Your task to perform on an android device: open app "AliExpress" Image 0: 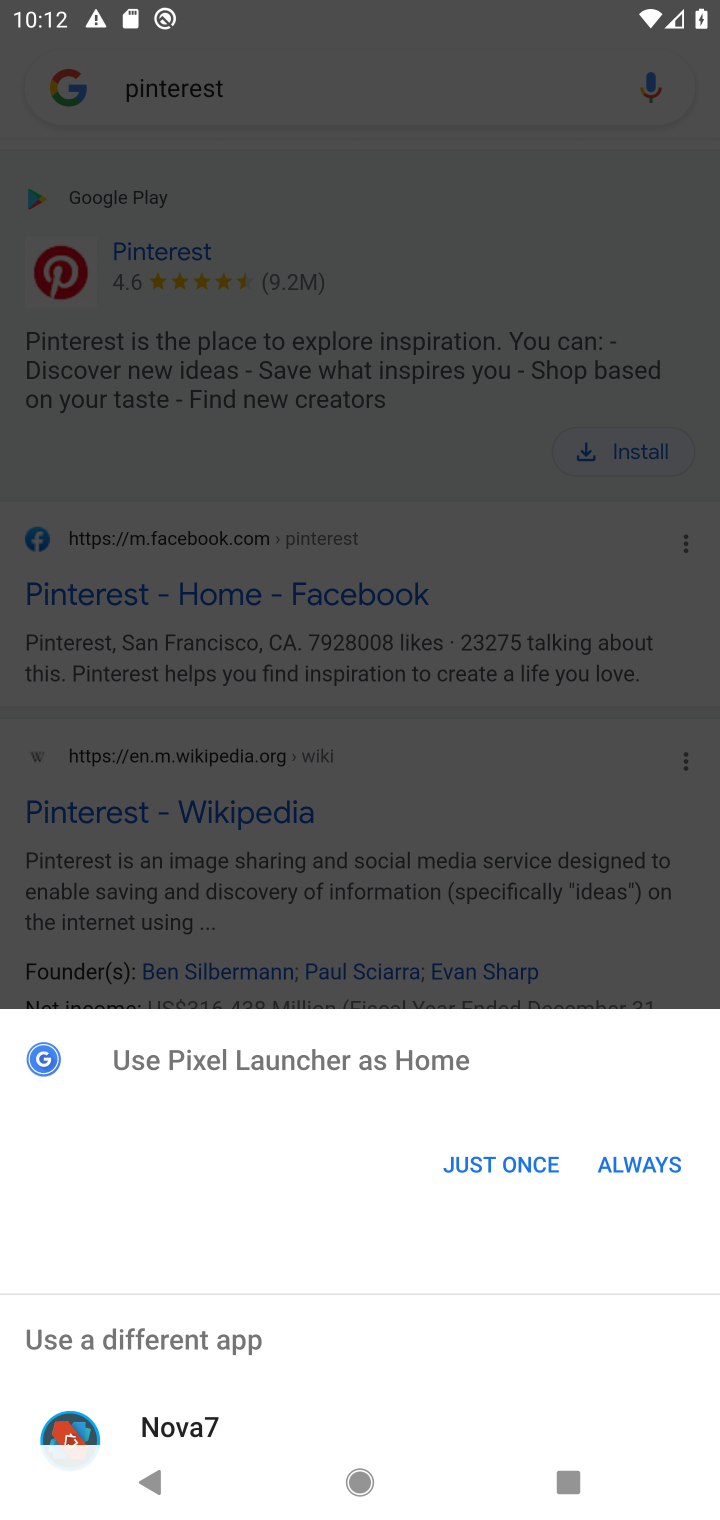
Step 0: press home button
Your task to perform on an android device: open app "AliExpress" Image 1: 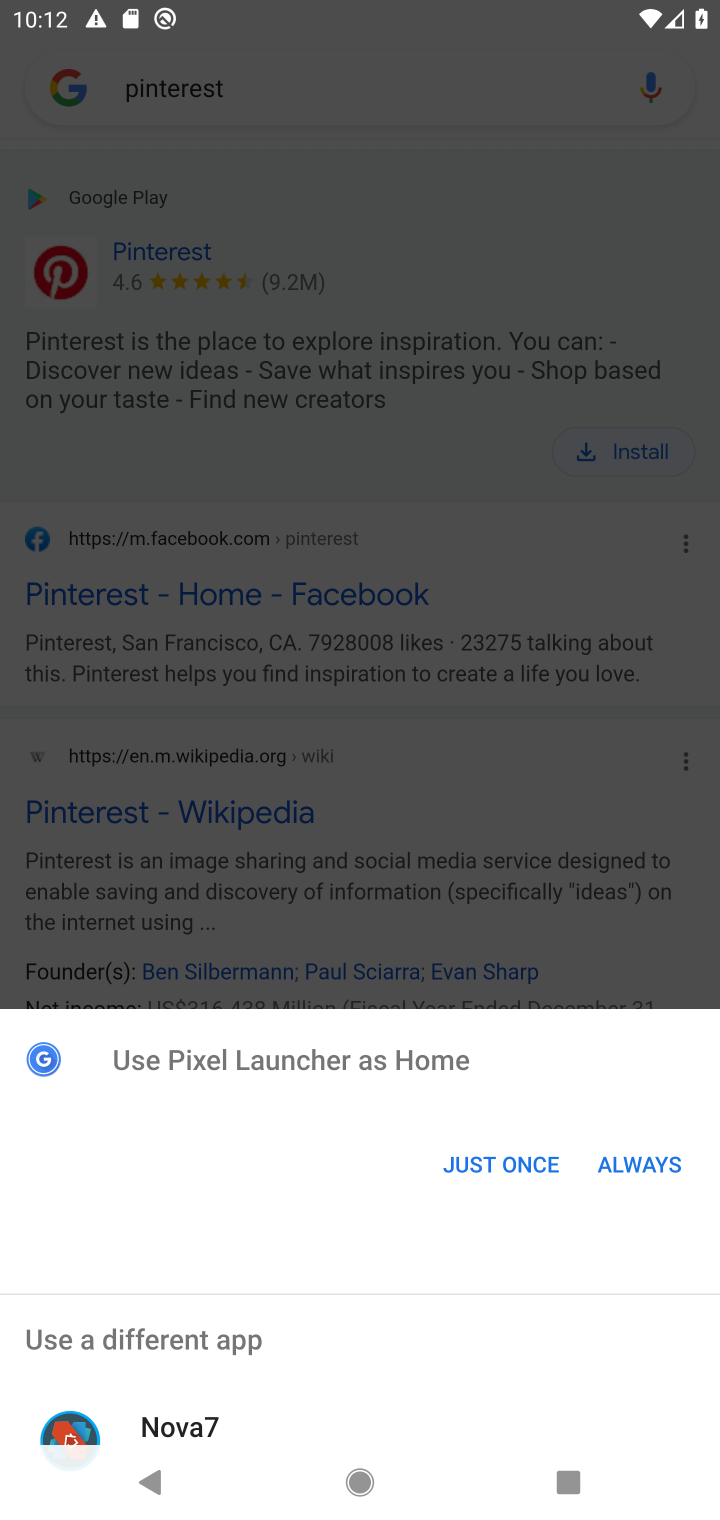
Step 1: click (470, 1182)
Your task to perform on an android device: open app "AliExpress" Image 2: 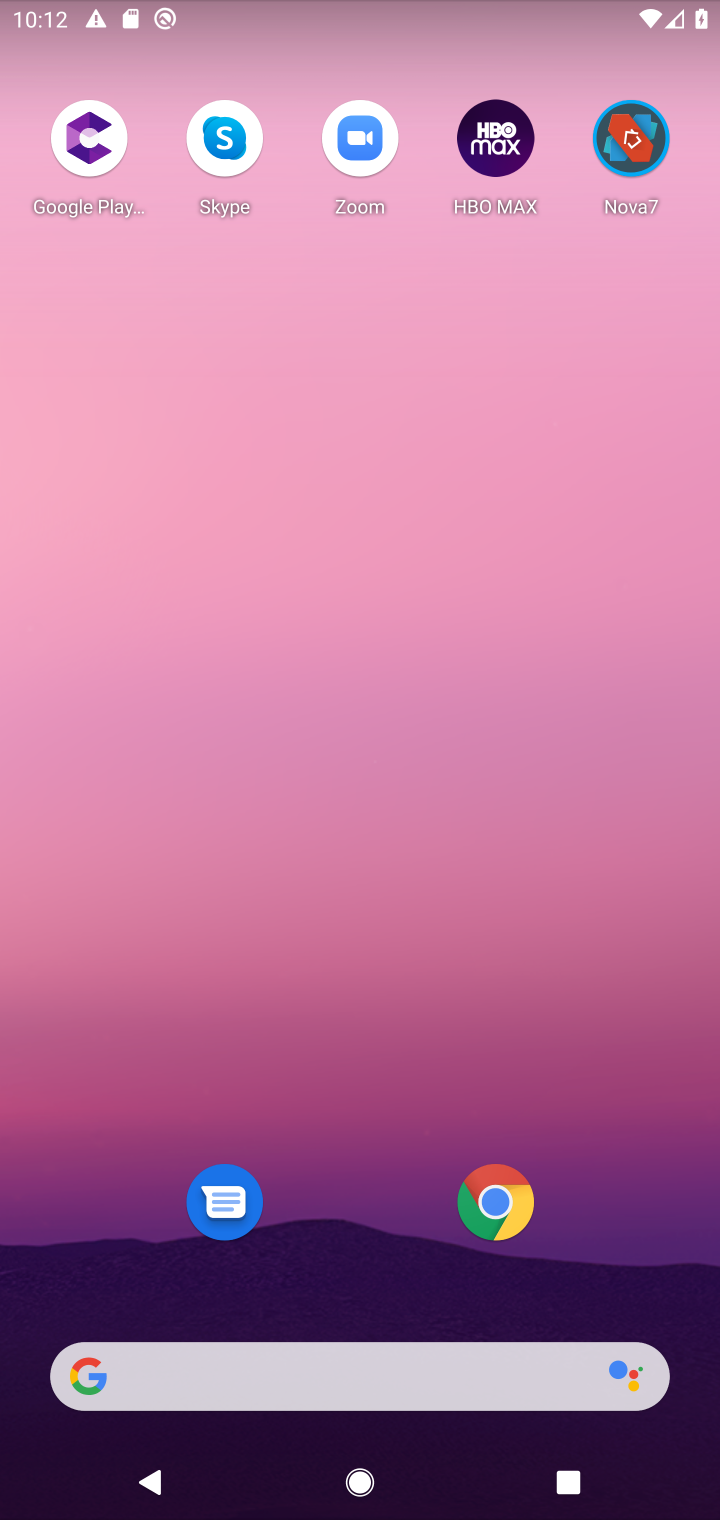
Step 2: click (342, 1383)
Your task to perform on an android device: open app "AliExpress" Image 3: 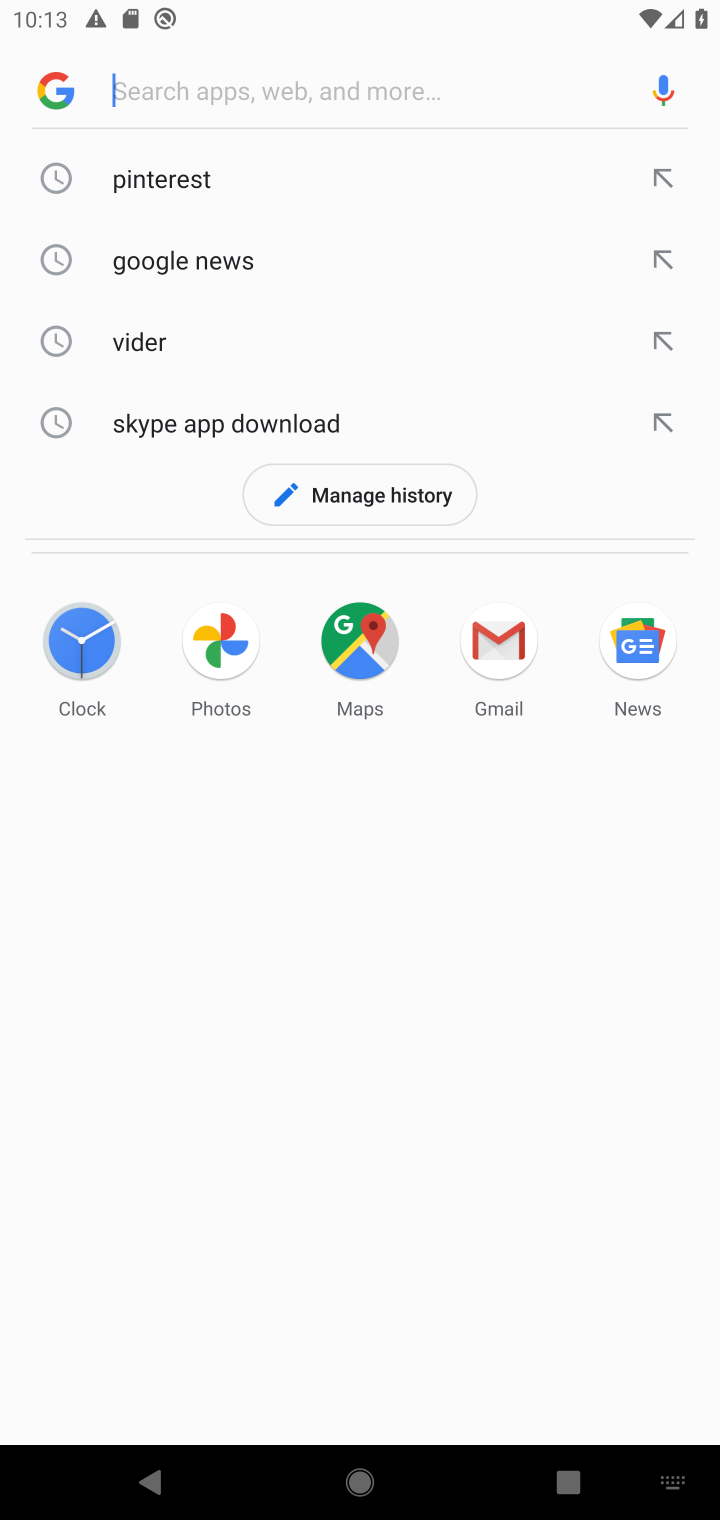
Step 3: type "aliexpress"
Your task to perform on an android device: open app "AliExpress" Image 4: 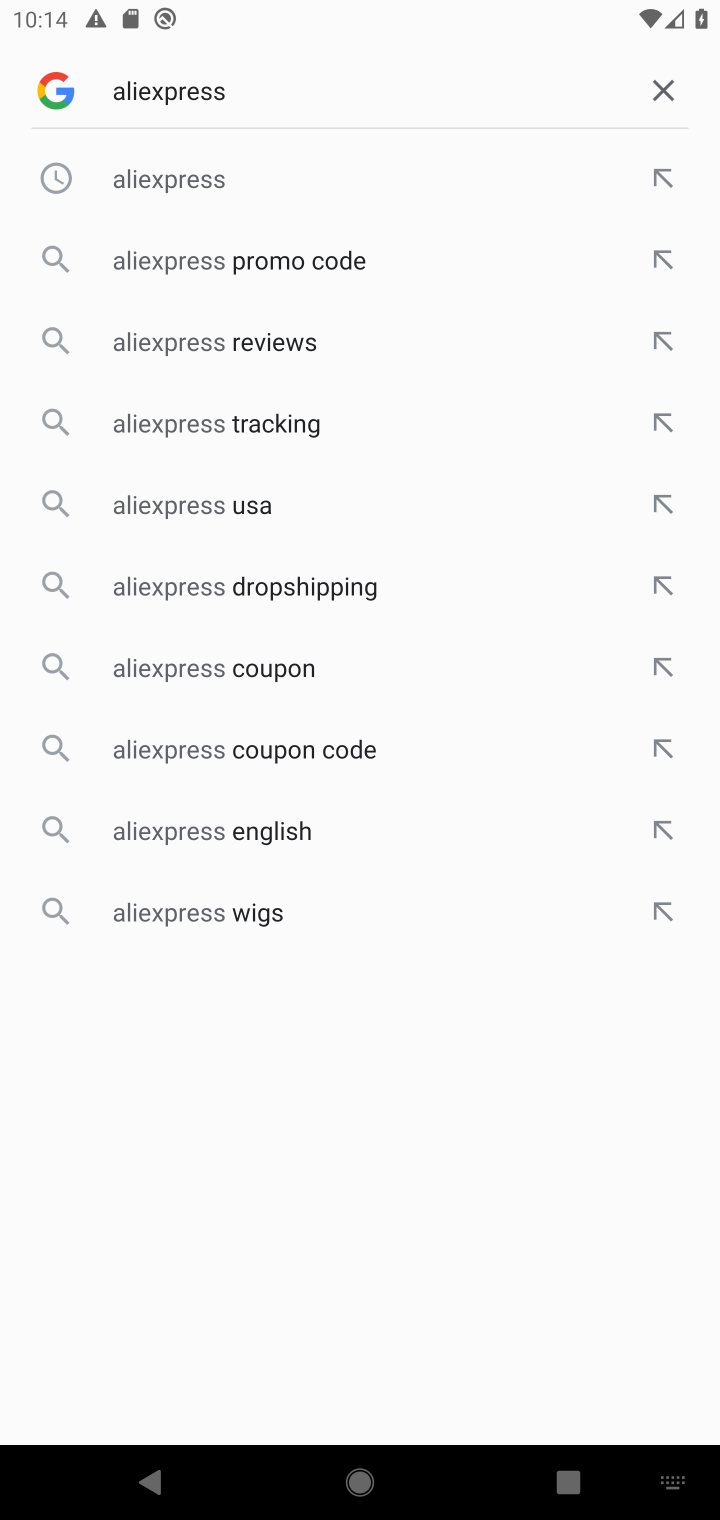
Step 4: task complete